Your task to perform on an android device: Set the phone to "Do not disturb". Image 0: 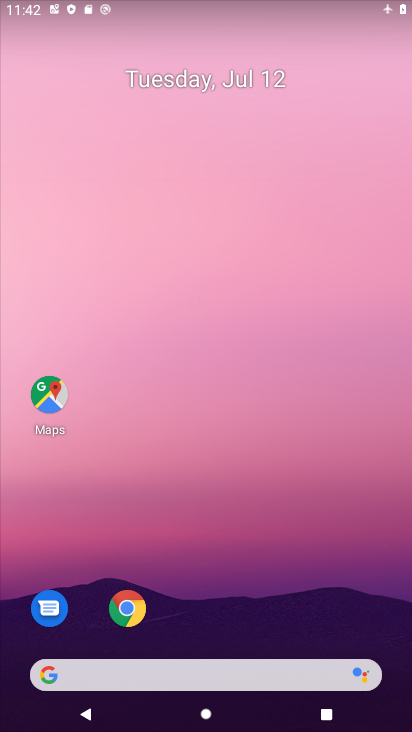
Step 0: drag from (269, 709) to (276, 65)
Your task to perform on an android device: Set the phone to "Do not disturb". Image 1: 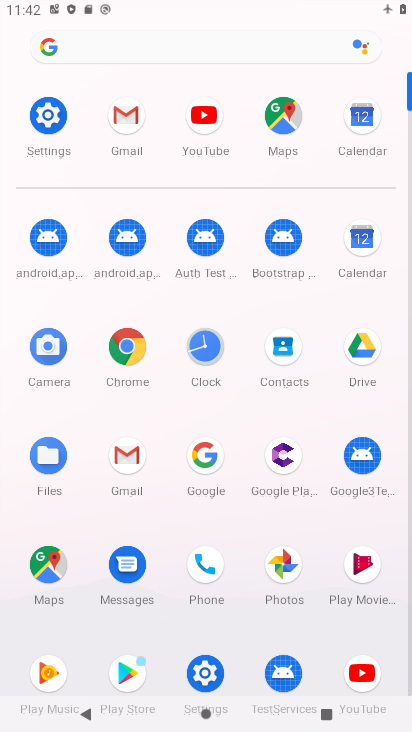
Step 1: click (43, 120)
Your task to perform on an android device: Set the phone to "Do not disturb". Image 2: 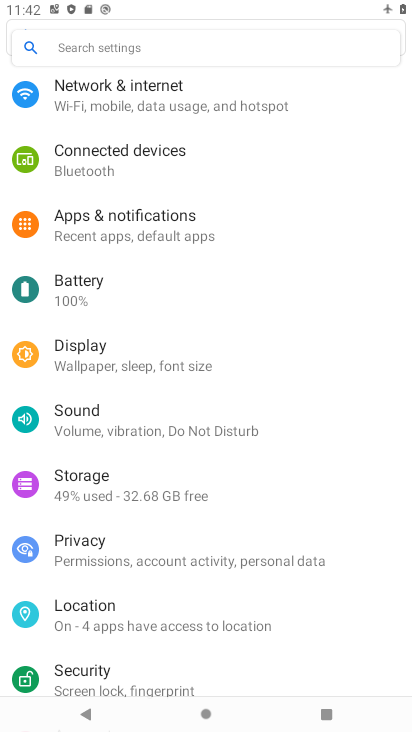
Step 2: click (138, 429)
Your task to perform on an android device: Set the phone to "Do not disturb". Image 3: 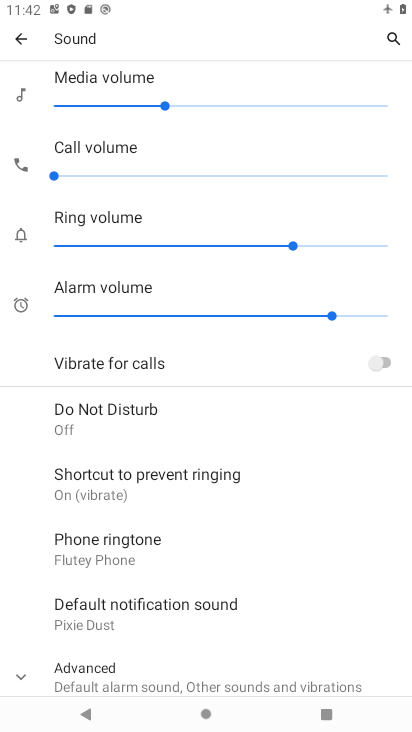
Step 3: click (102, 410)
Your task to perform on an android device: Set the phone to "Do not disturb". Image 4: 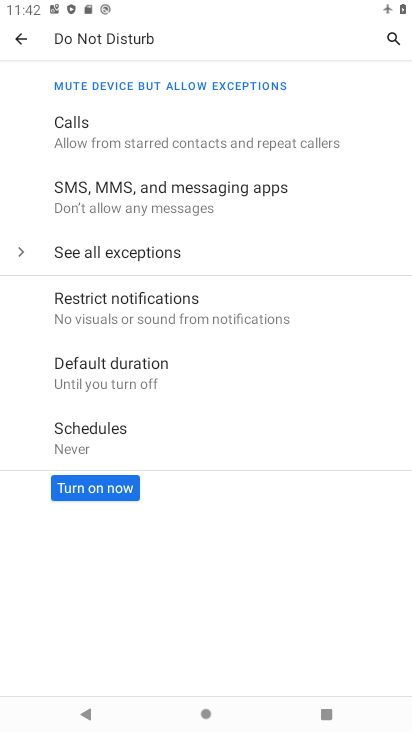
Step 4: click (93, 489)
Your task to perform on an android device: Set the phone to "Do not disturb". Image 5: 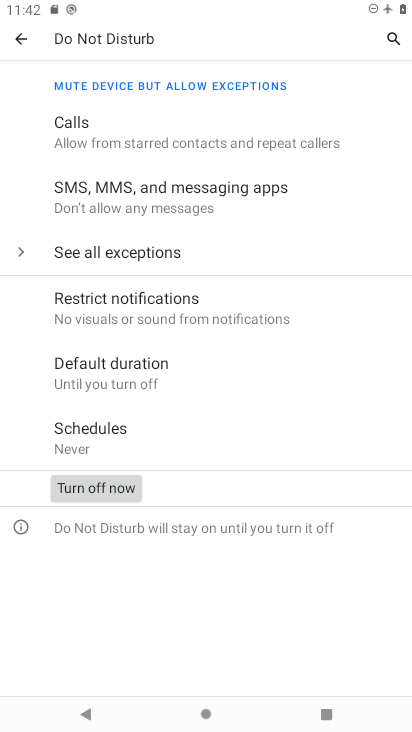
Step 5: task complete